Your task to perform on an android device: Show me recent news Image 0: 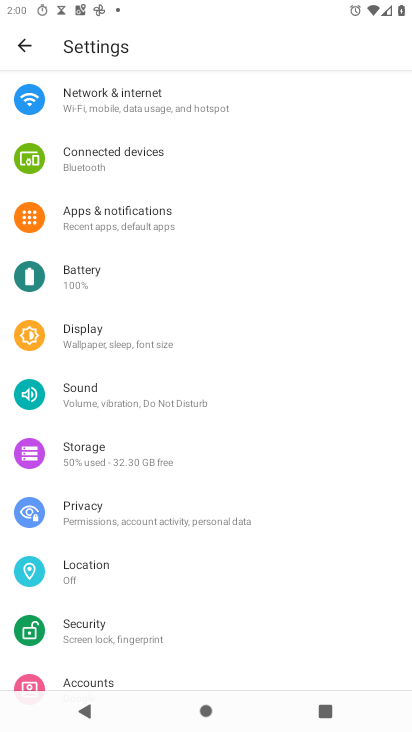
Step 0: press home button
Your task to perform on an android device: Show me recent news Image 1: 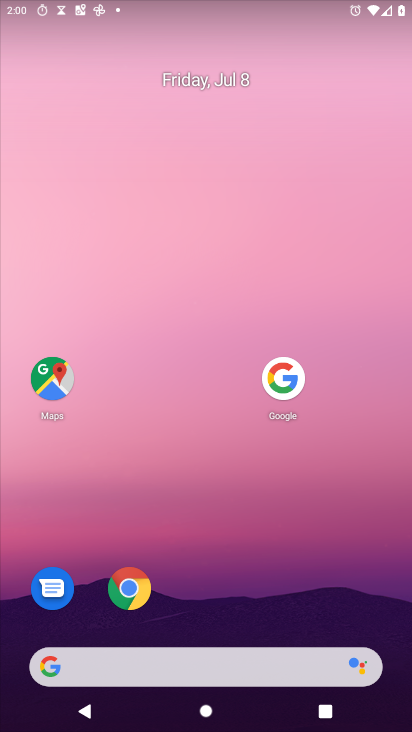
Step 1: click (159, 662)
Your task to perform on an android device: Show me recent news Image 2: 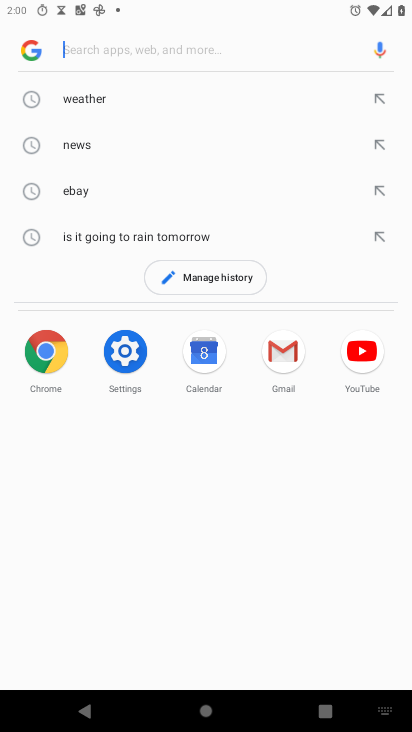
Step 2: click (88, 143)
Your task to perform on an android device: Show me recent news Image 3: 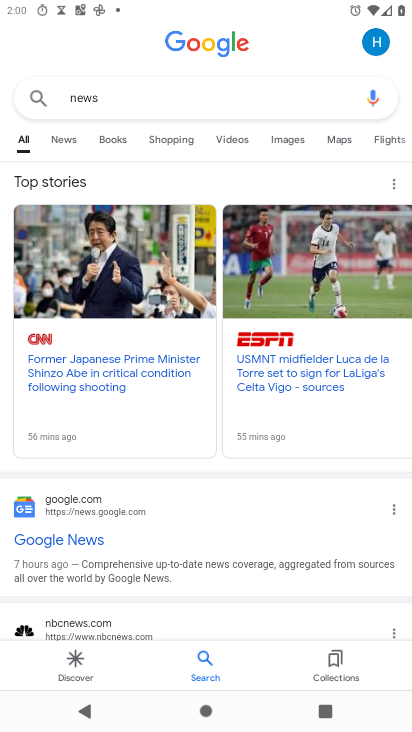
Step 3: task complete